Your task to perform on an android device: turn on sleep mode Image 0: 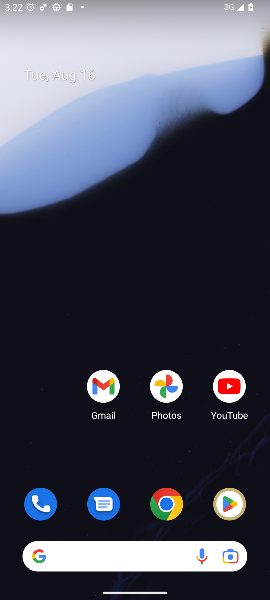
Step 0: drag from (136, 505) to (116, 80)
Your task to perform on an android device: turn on sleep mode Image 1: 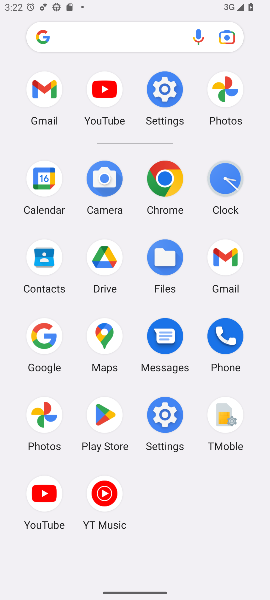
Step 1: click (167, 88)
Your task to perform on an android device: turn on sleep mode Image 2: 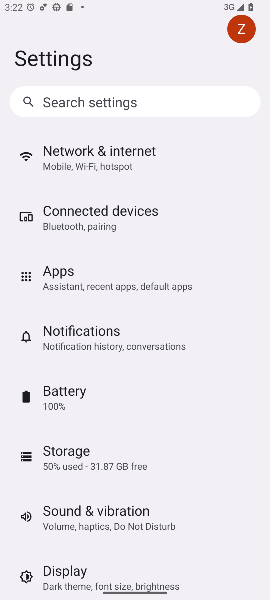
Step 2: click (72, 577)
Your task to perform on an android device: turn on sleep mode Image 3: 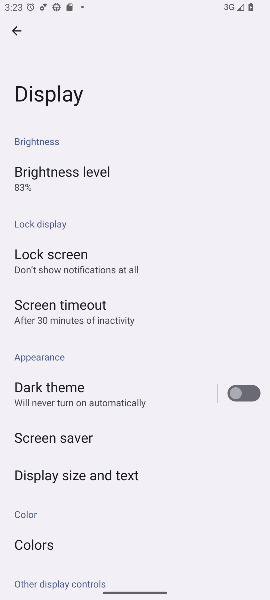
Step 3: task complete